Your task to perform on an android device: add a label to a message in the gmail app Image 0: 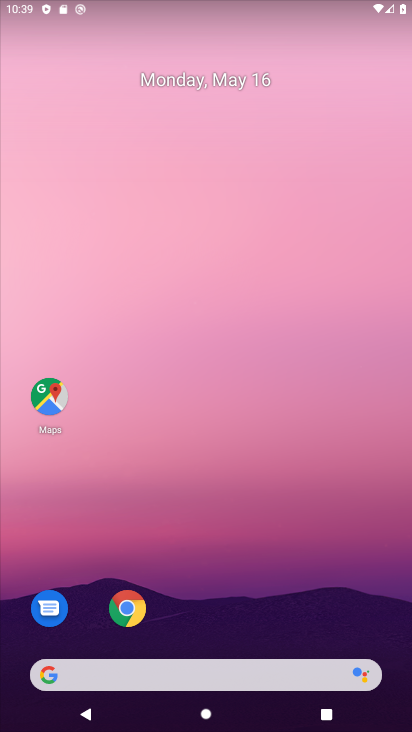
Step 0: drag from (373, 607) to (378, 48)
Your task to perform on an android device: add a label to a message in the gmail app Image 1: 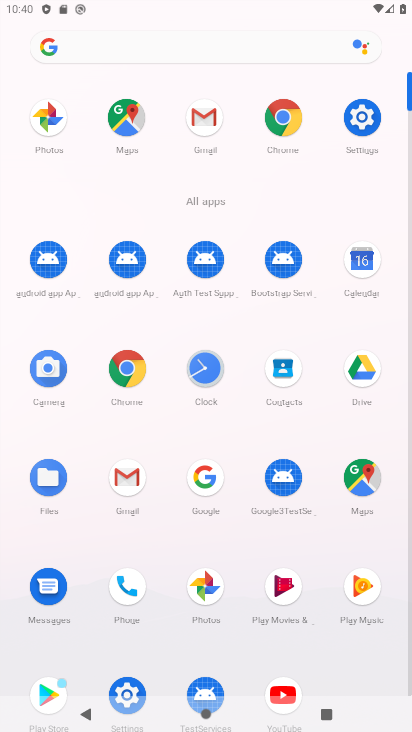
Step 1: click (123, 484)
Your task to perform on an android device: add a label to a message in the gmail app Image 2: 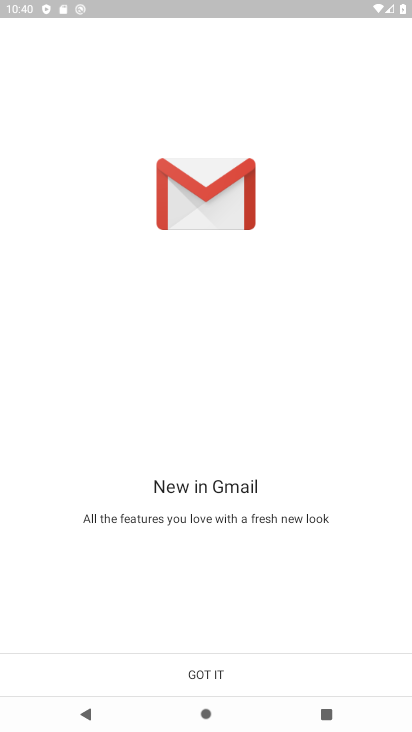
Step 2: click (222, 673)
Your task to perform on an android device: add a label to a message in the gmail app Image 3: 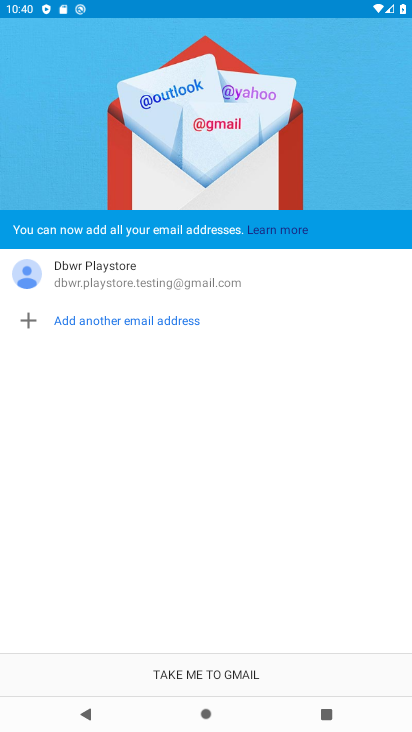
Step 3: click (226, 670)
Your task to perform on an android device: add a label to a message in the gmail app Image 4: 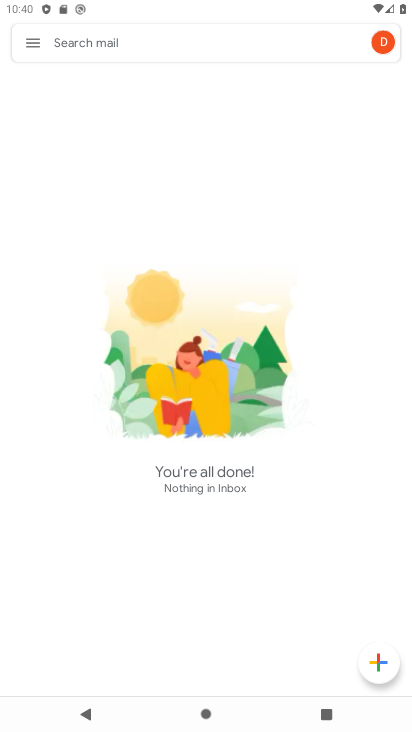
Step 4: click (39, 47)
Your task to perform on an android device: add a label to a message in the gmail app Image 5: 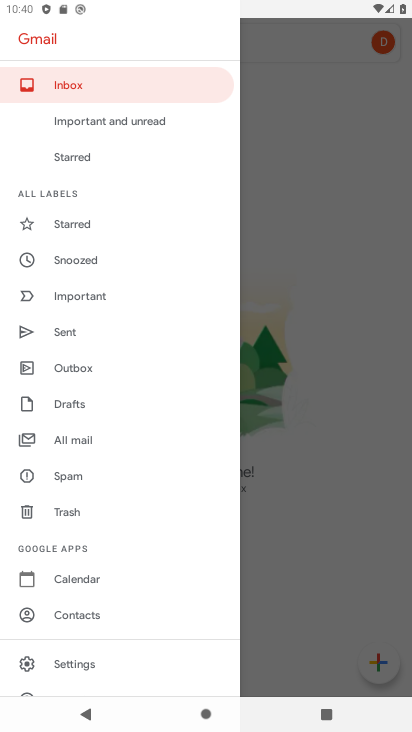
Step 5: click (116, 664)
Your task to perform on an android device: add a label to a message in the gmail app Image 6: 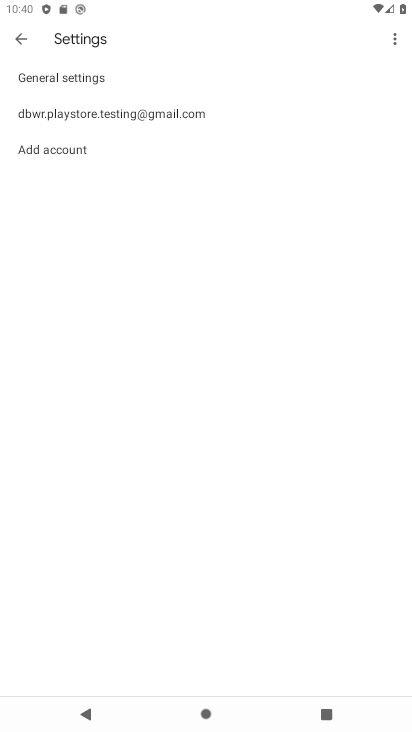
Step 6: click (195, 121)
Your task to perform on an android device: add a label to a message in the gmail app Image 7: 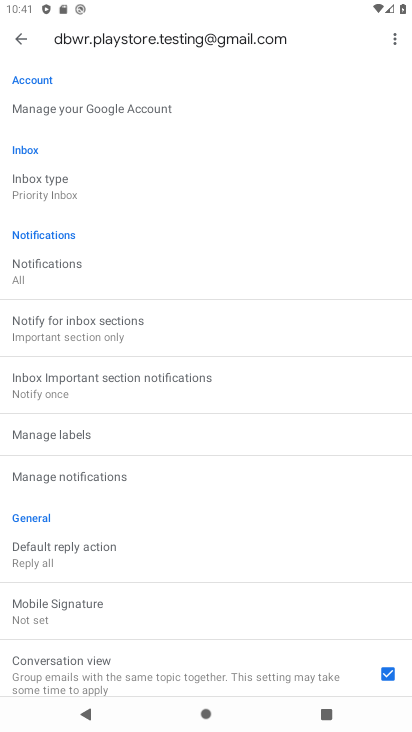
Step 7: click (8, 30)
Your task to perform on an android device: add a label to a message in the gmail app Image 8: 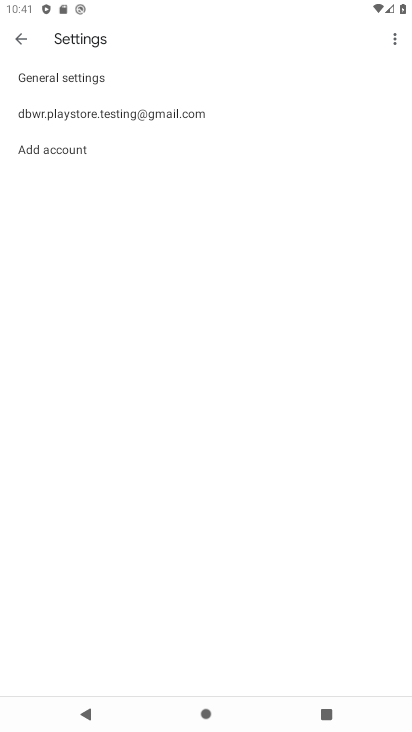
Step 8: click (8, 30)
Your task to perform on an android device: add a label to a message in the gmail app Image 9: 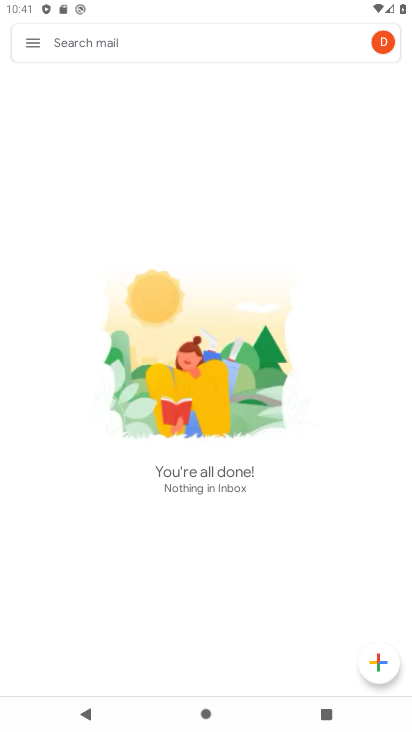
Step 9: click (25, 44)
Your task to perform on an android device: add a label to a message in the gmail app Image 10: 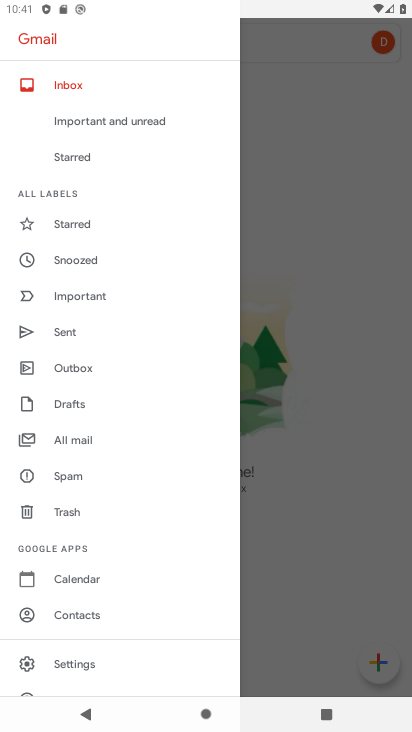
Step 10: click (81, 431)
Your task to perform on an android device: add a label to a message in the gmail app Image 11: 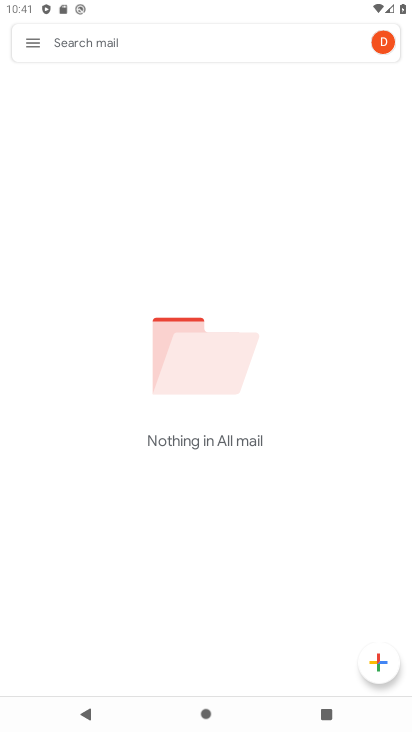
Step 11: task complete